Your task to perform on an android device: turn off sleep mode Image 0: 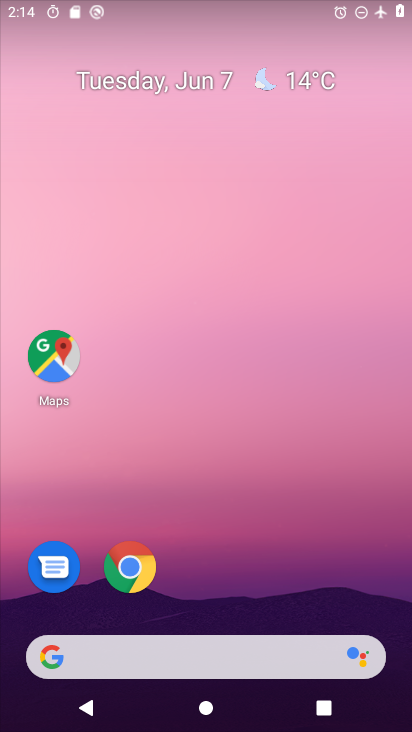
Step 0: drag from (252, 533) to (253, 20)
Your task to perform on an android device: turn off sleep mode Image 1: 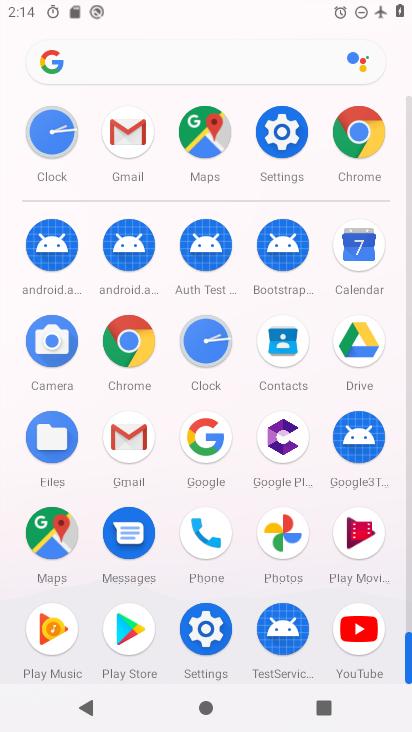
Step 1: click (296, 121)
Your task to perform on an android device: turn off sleep mode Image 2: 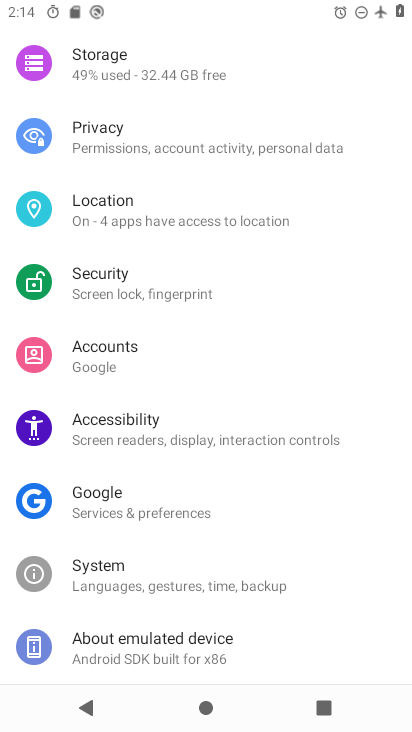
Step 2: drag from (199, 193) to (191, 624)
Your task to perform on an android device: turn off sleep mode Image 3: 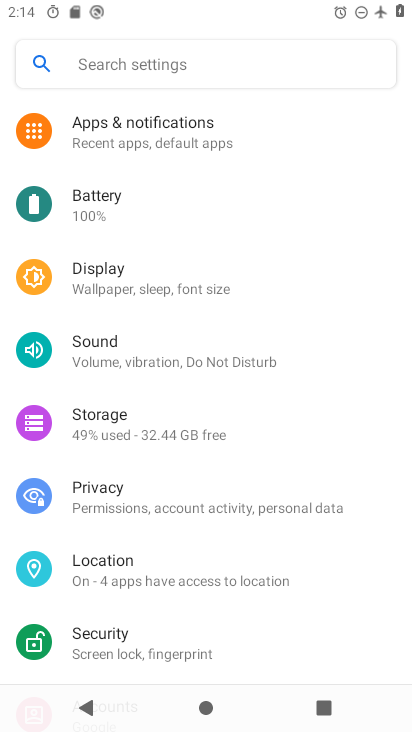
Step 3: click (142, 262)
Your task to perform on an android device: turn off sleep mode Image 4: 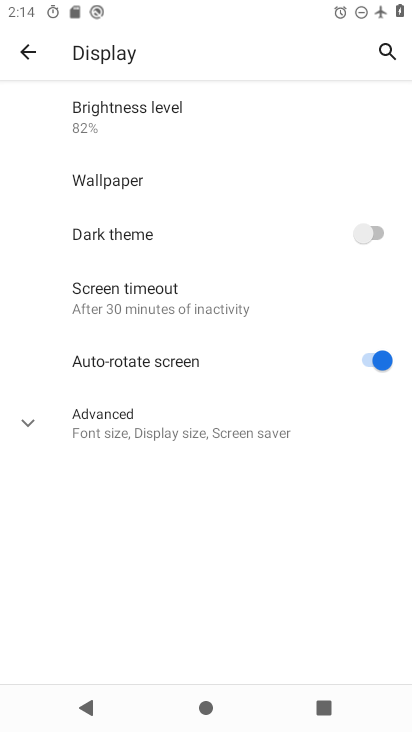
Step 4: click (138, 298)
Your task to perform on an android device: turn off sleep mode Image 5: 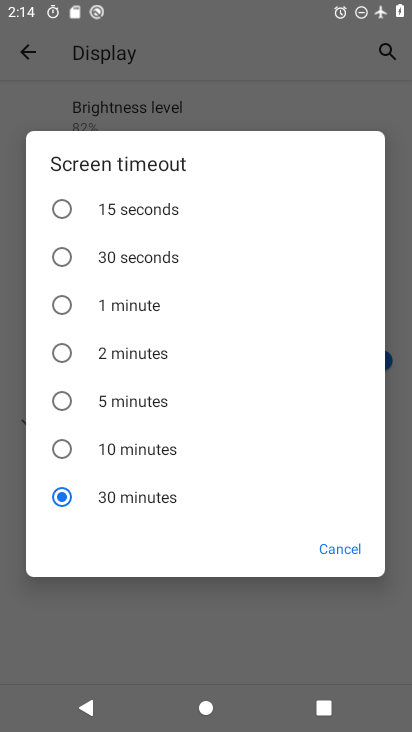
Step 5: task complete